Your task to perform on an android device: Search for acer predator on newegg, select the first entry, and add it to the cart. Image 0: 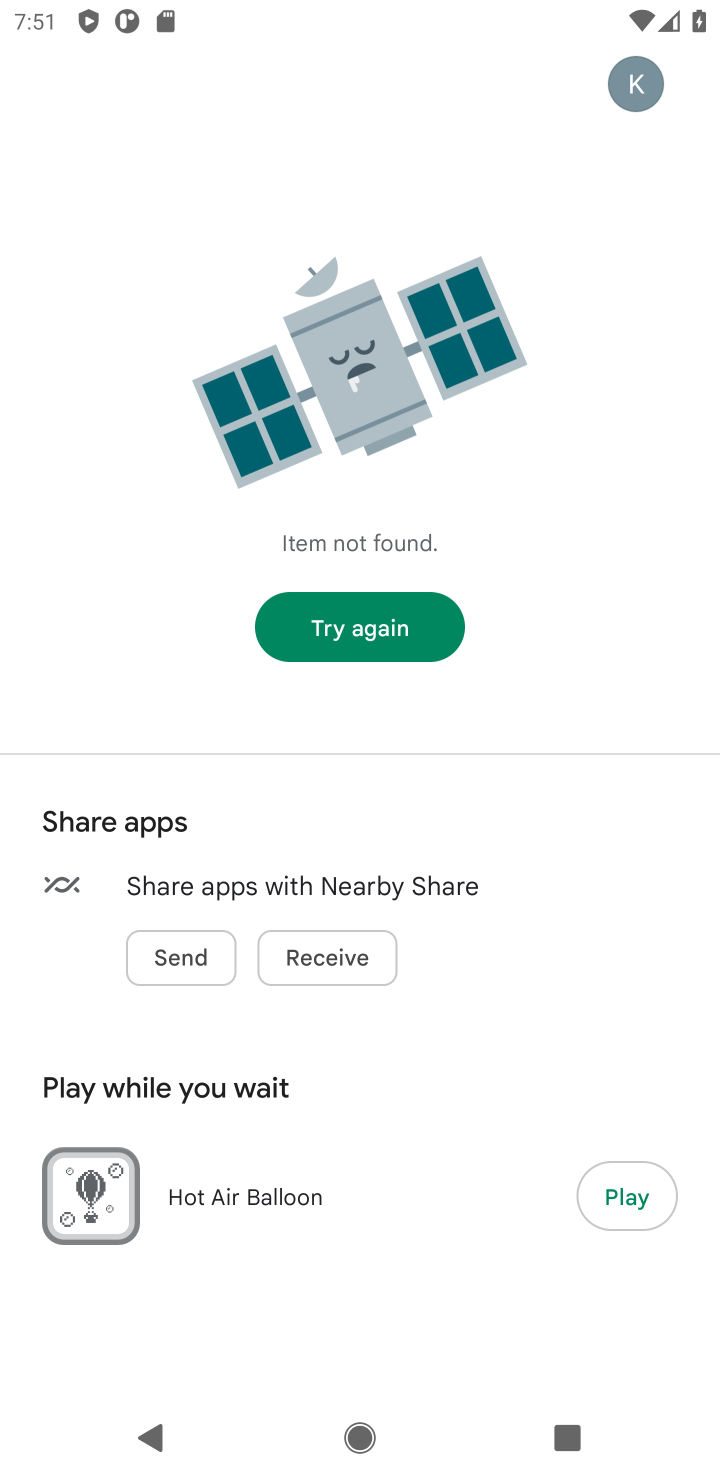
Step 0: press home button
Your task to perform on an android device: Search for acer predator on newegg, select the first entry, and add it to the cart. Image 1: 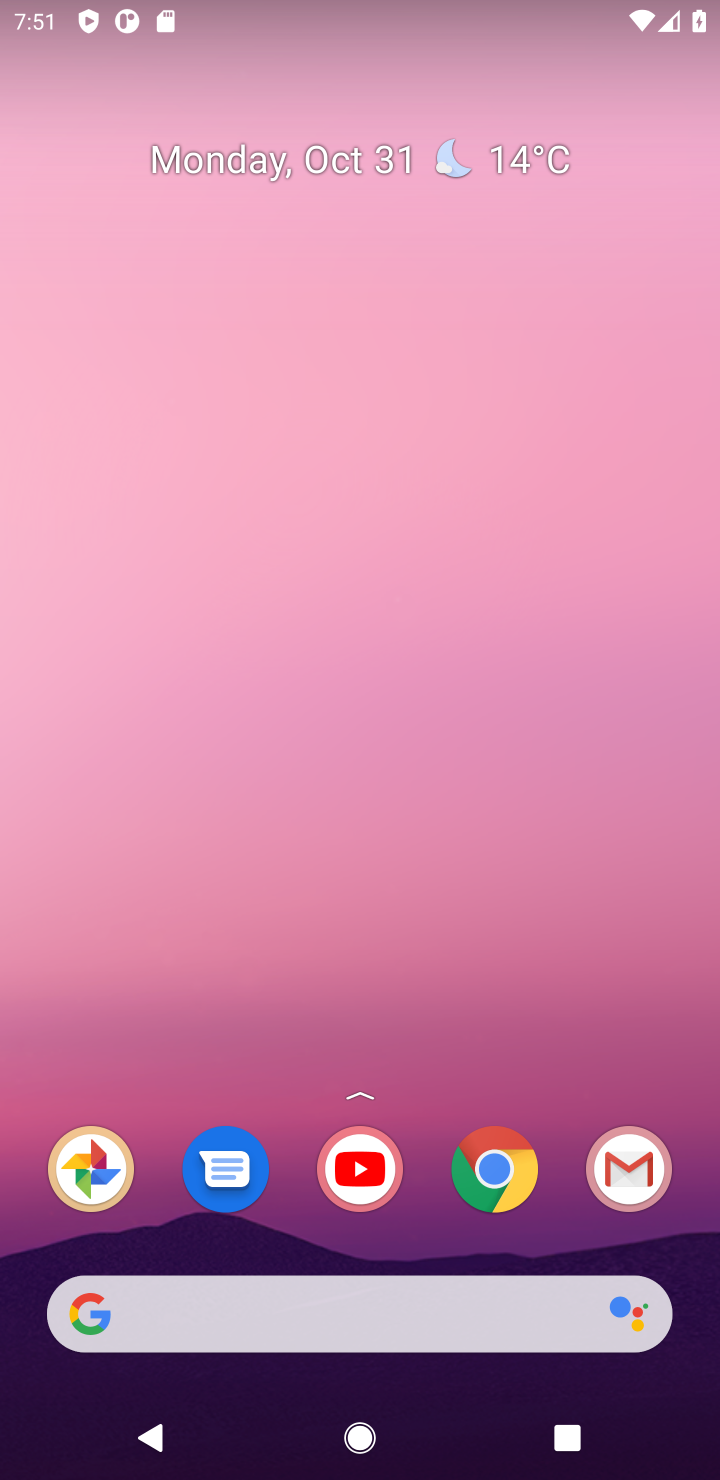
Step 1: drag from (349, 1327) to (317, 250)
Your task to perform on an android device: Search for acer predator on newegg, select the first entry, and add it to the cart. Image 2: 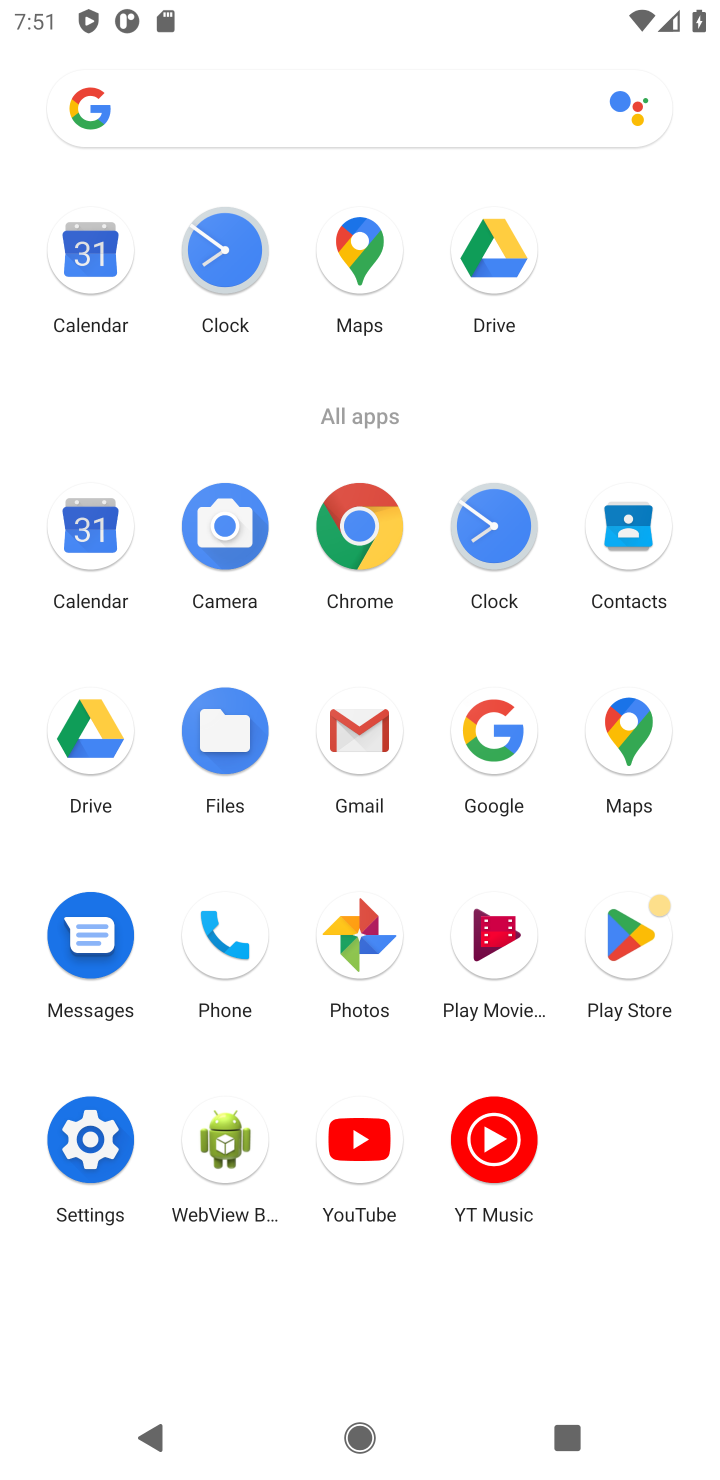
Step 2: click (504, 722)
Your task to perform on an android device: Search for acer predator on newegg, select the first entry, and add it to the cart. Image 3: 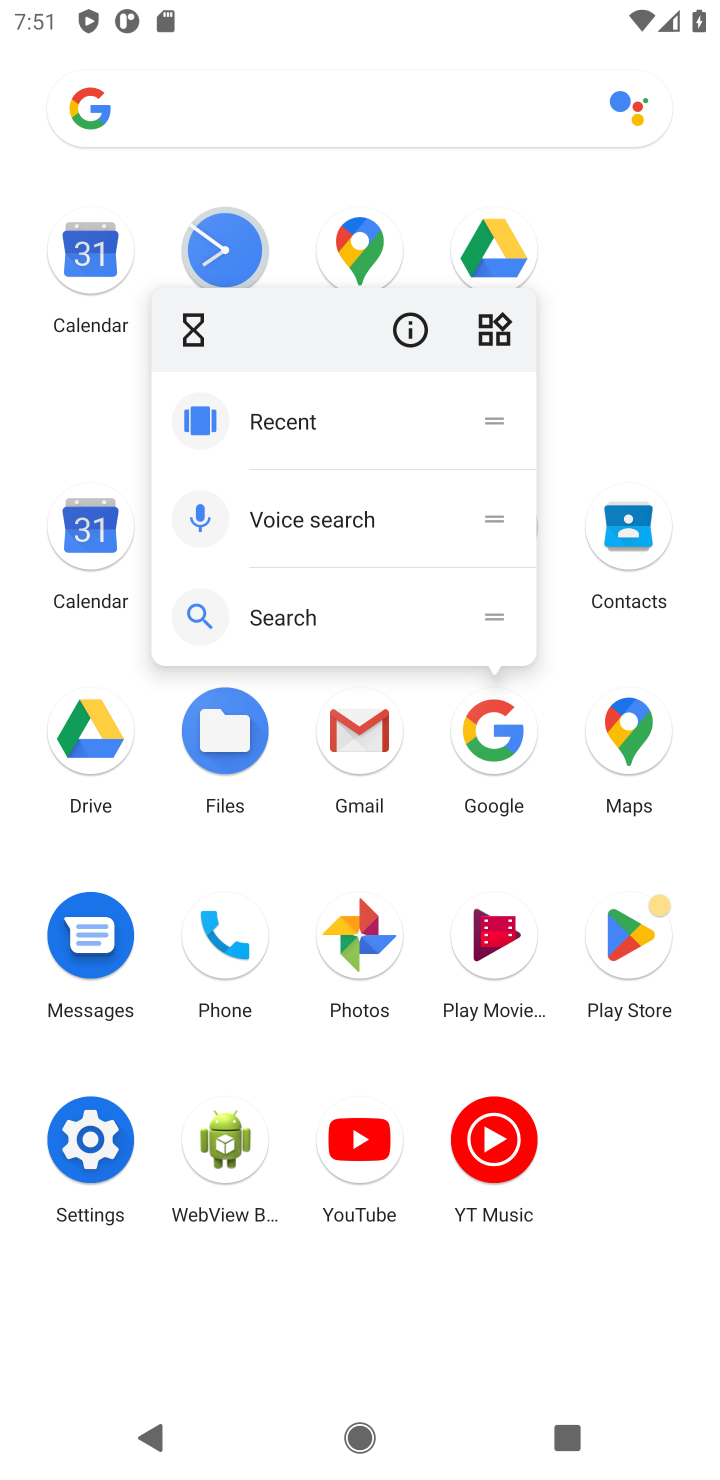
Step 3: click (493, 715)
Your task to perform on an android device: Search for acer predator on newegg, select the first entry, and add it to the cart. Image 4: 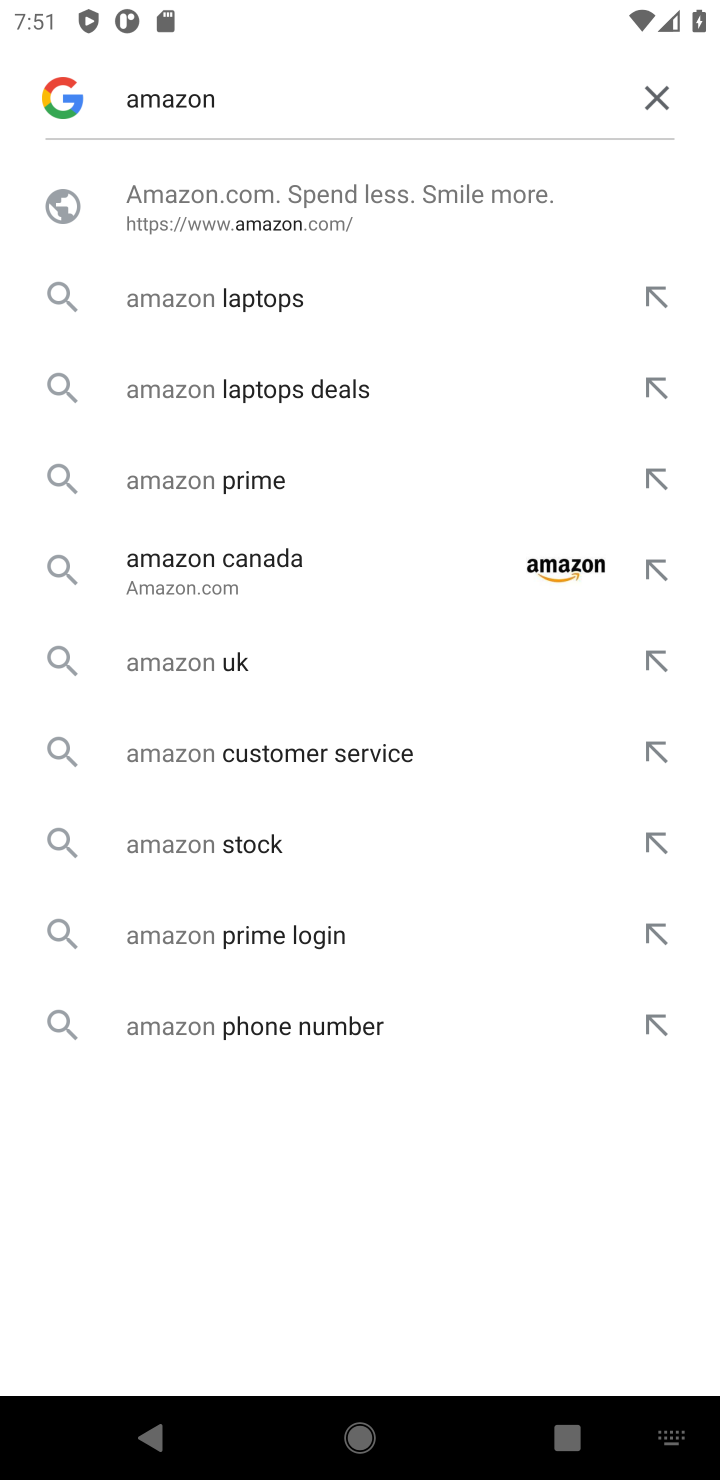
Step 4: click (671, 89)
Your task to perform on an android device: Search for acer predator on newegg, select the first entry, and add it to the cart. Image 5: 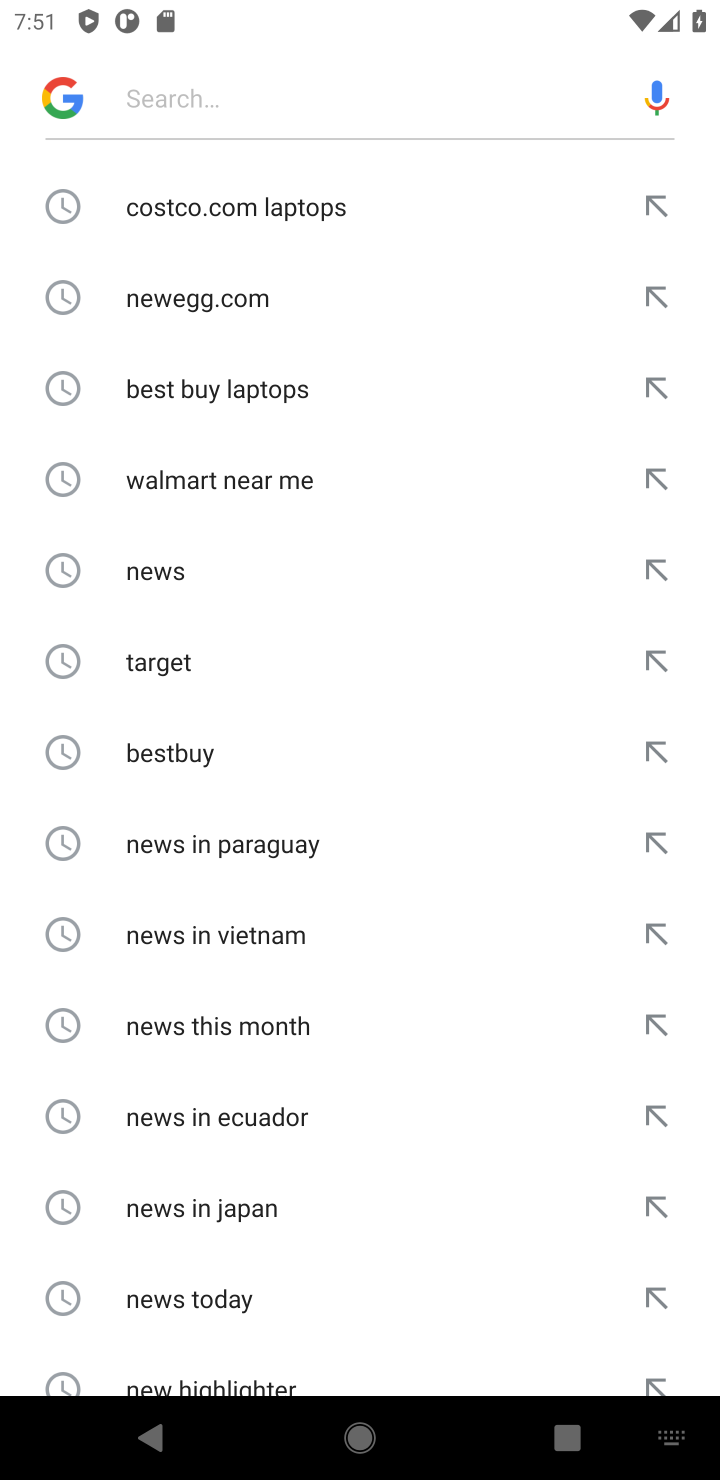
Step 5: click (254, 77)
Your task to perform on an android device: Search for acer predator on newegg, select the first entry, and add it to the cart. Image 6: 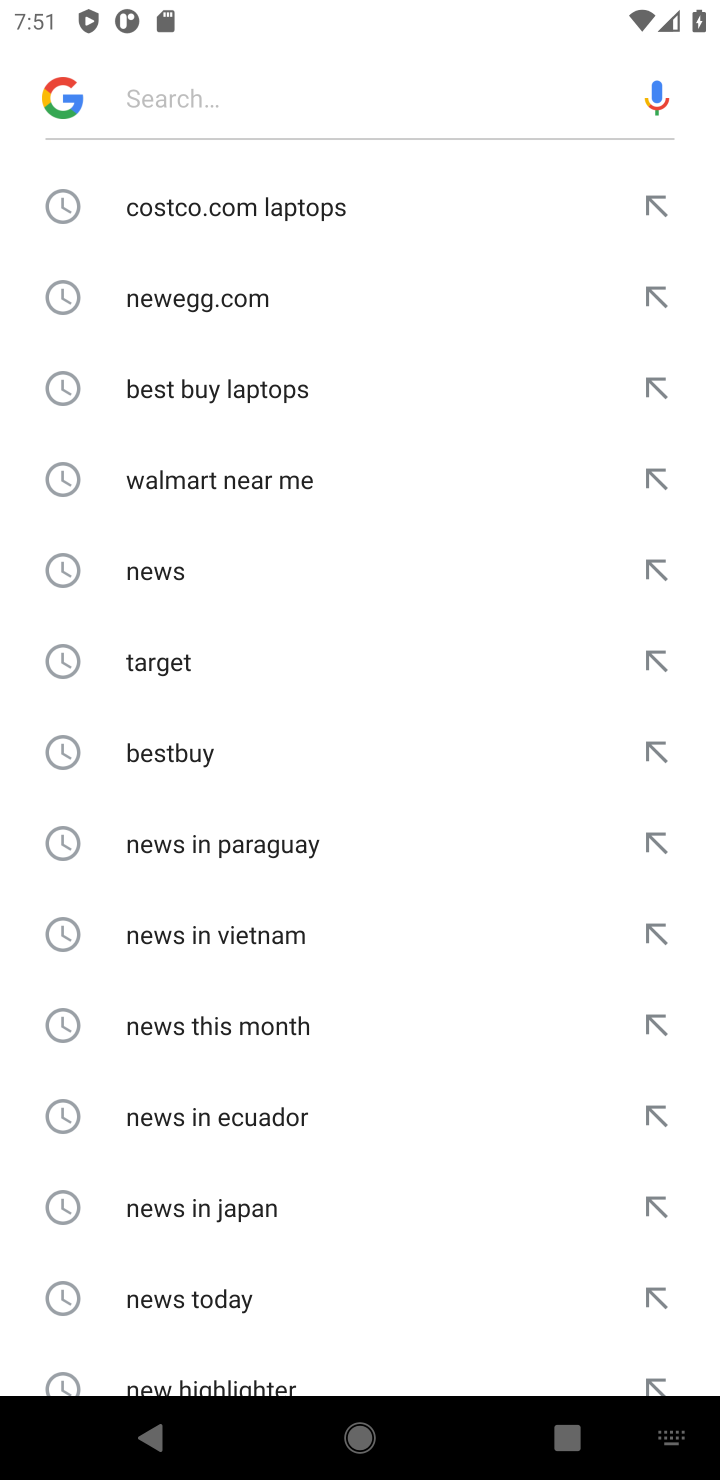
Step 6: type "newegg "
Your task to perform on an android device: Search for acer predator on newegg, select the first entry, and add it to the cart. Image 7: 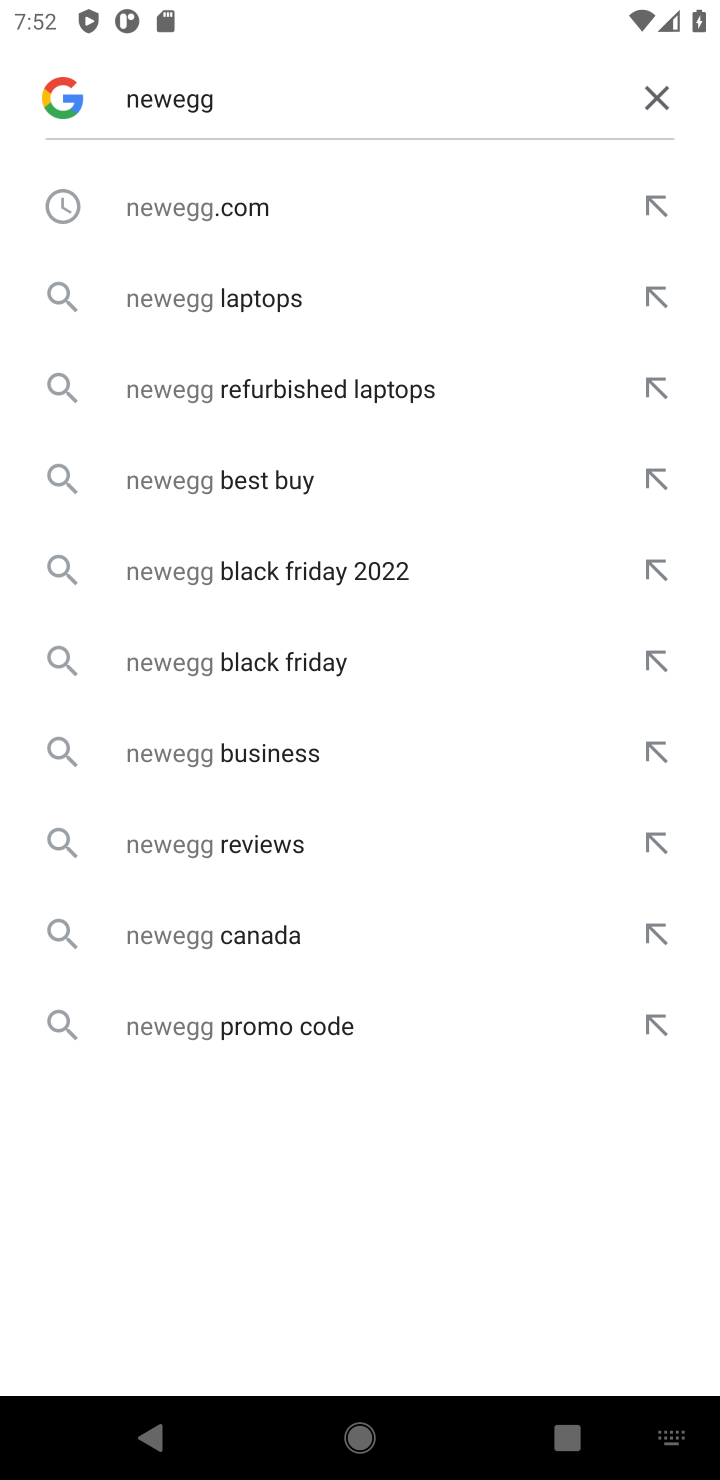
Step 7: click (209, 193)
Your task to perform on an android device: Search for acer predator on newegg, select the first entry, and add it to the cart. Image 8: 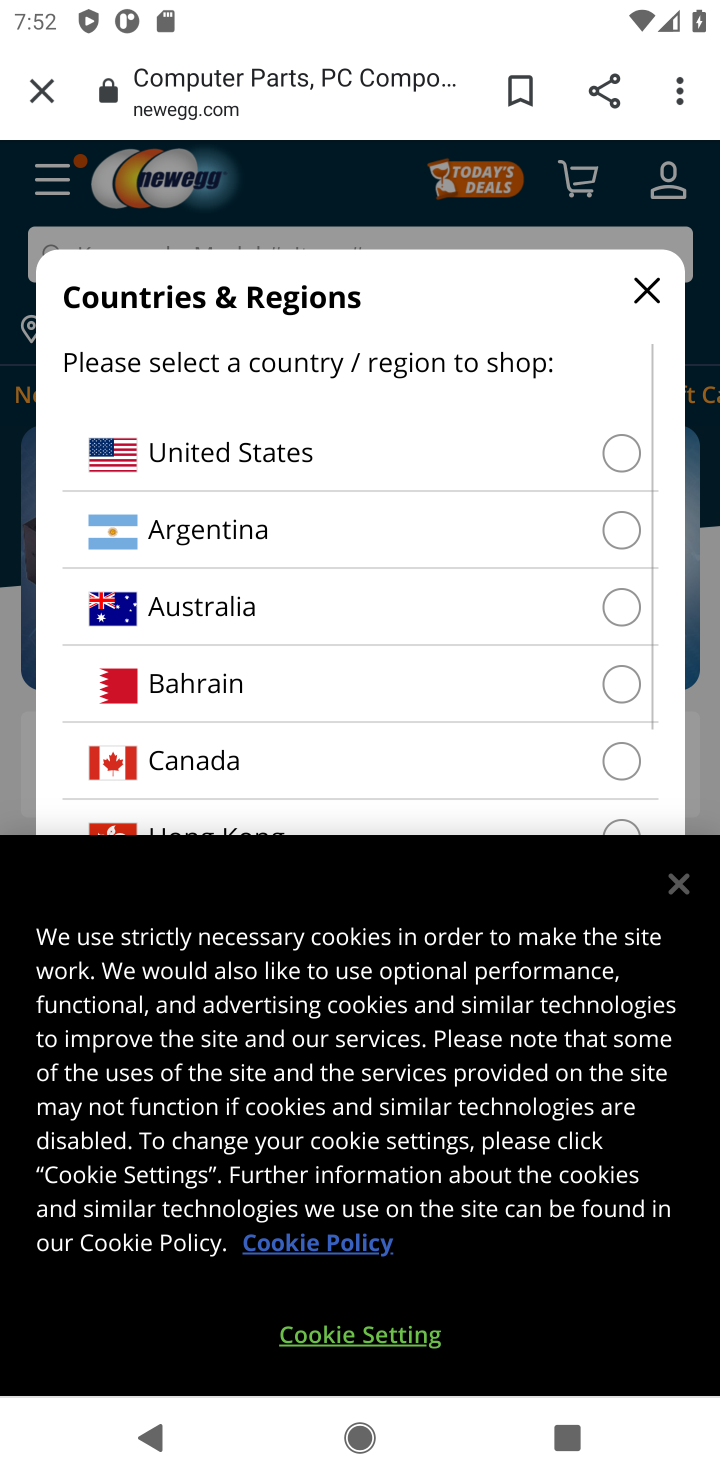
Step 8: click (676, 880)
Your task to perform on an android device: Search for acer predator on newegg, select the first entry, and add it to the cart. Image 9: 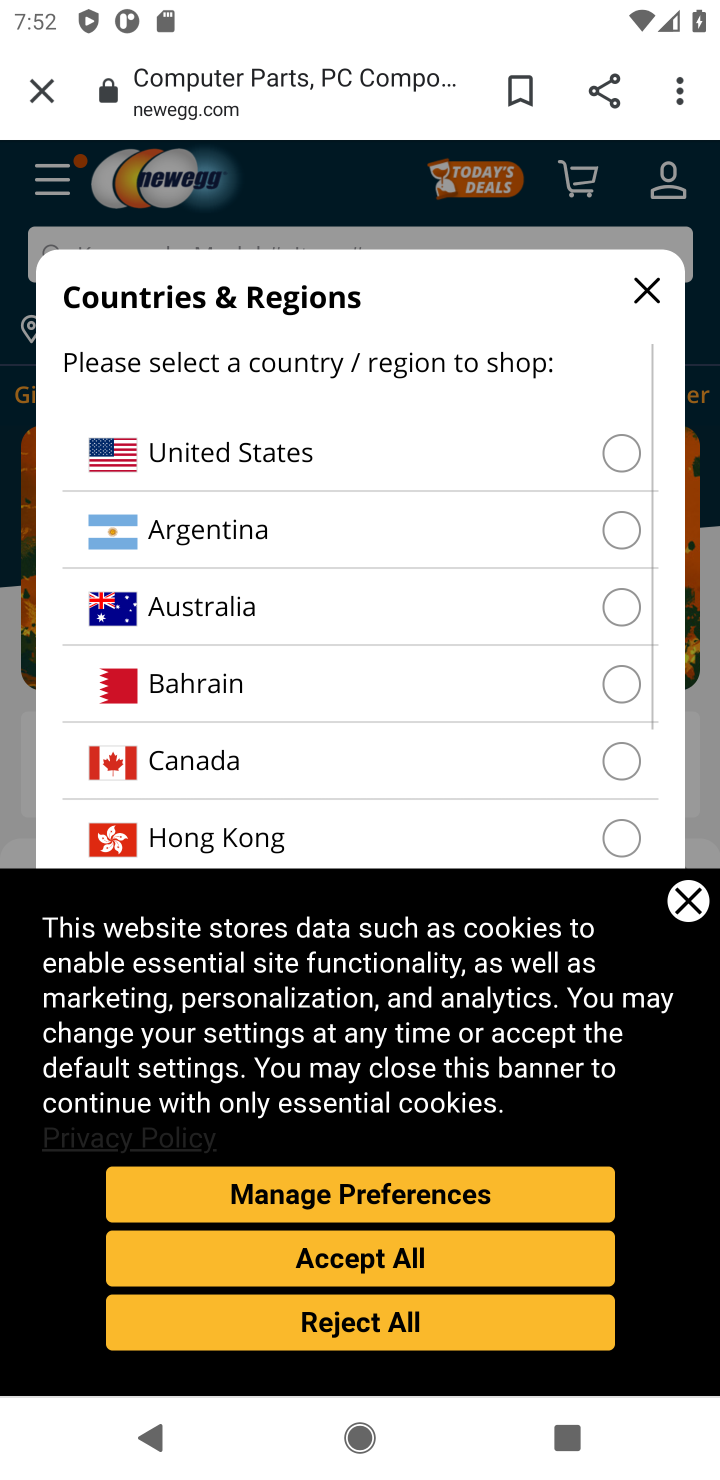
Step 9: click (674, 899)
Your task to perform on an android device: Search for acer predator on newegg, select the first entry, and add it to the cart. Image 10: 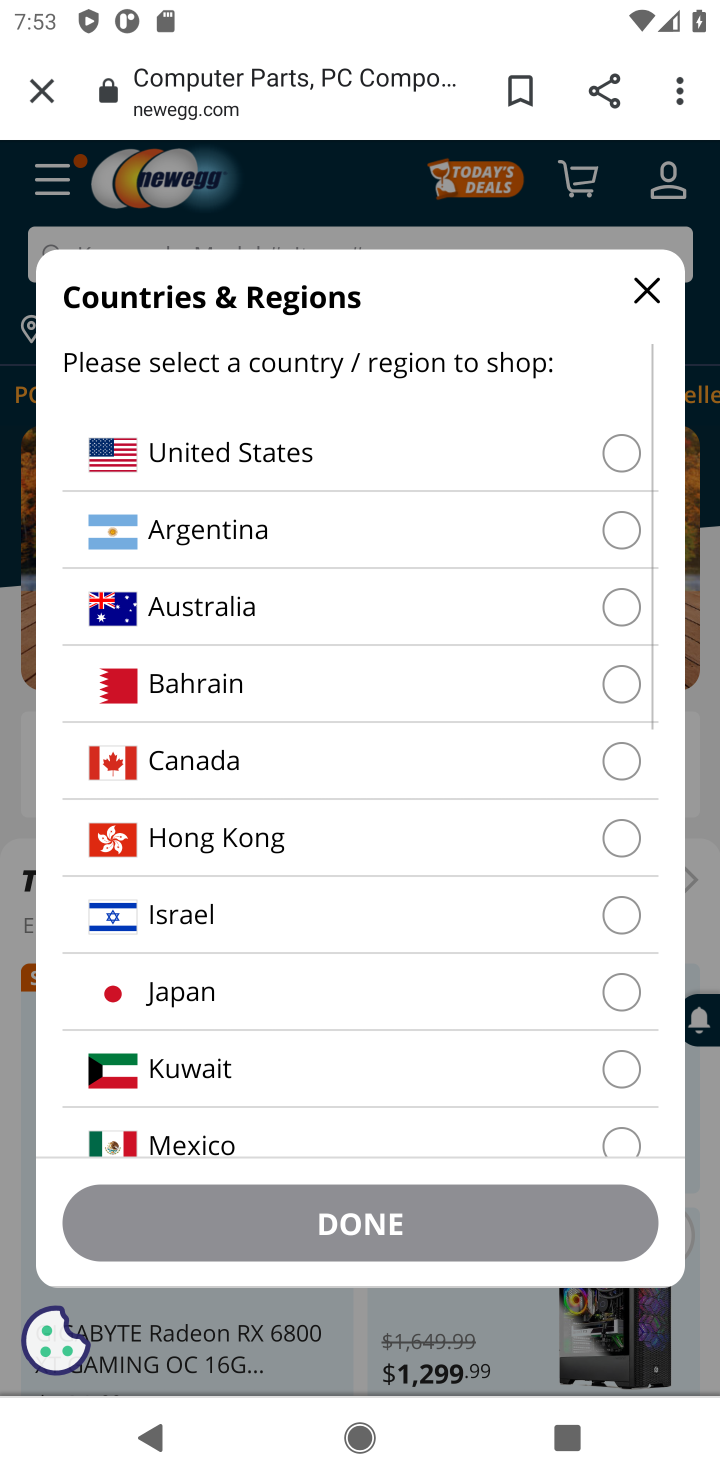
Step 10: click (612, 437)
Your task to perform on an android device: Search for acer predator on newegg, select the first entry, and add it to the cart. Image 11: 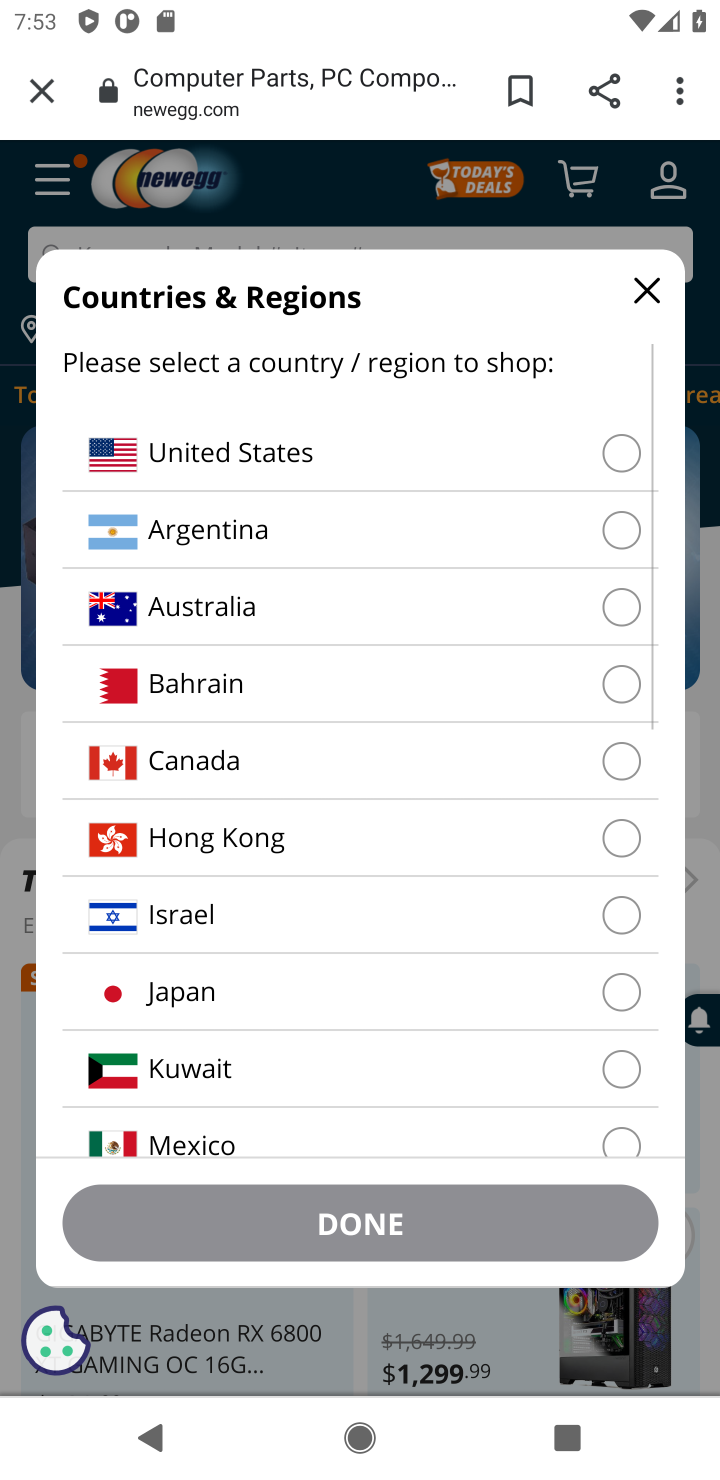
Step 11: click (606, 443)
Your task to perform on an android device: Search for acer predator on newegg, select the first entry, and add it to the cart. Image 12: 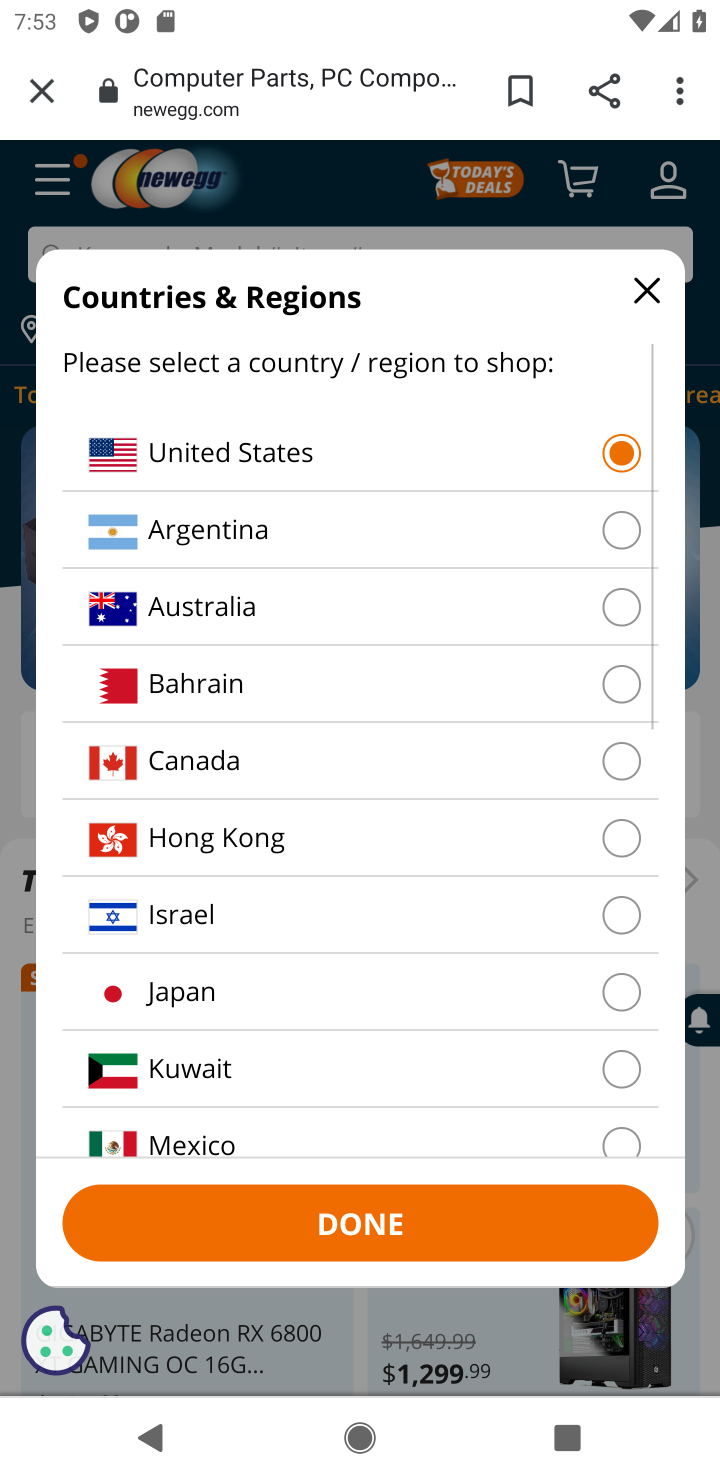
Step 12: click (629, 455)
Your task to perform on an android device: Search for acer predator on newegg, select the first entry, and add it to the cart. Image 13: 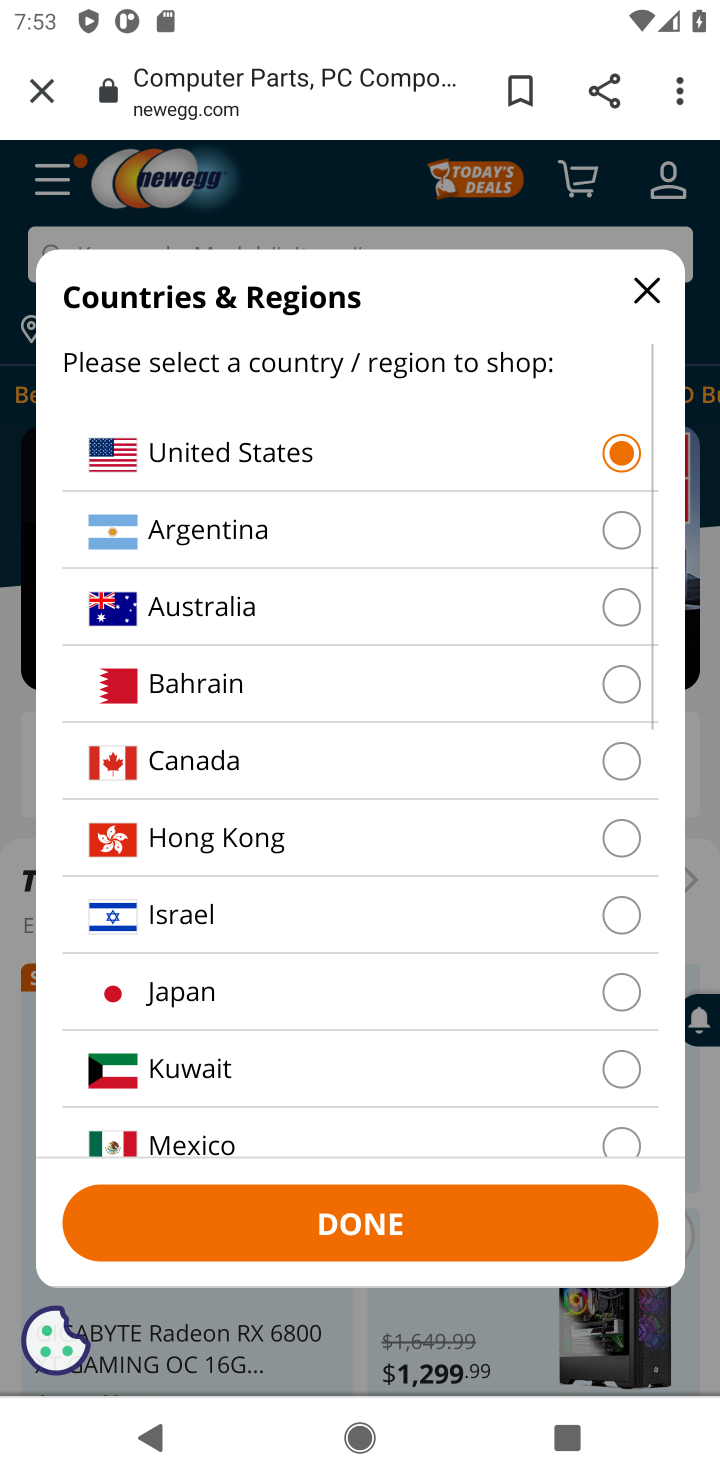
Step 13: click (442, 1230)
Your task to perform on an android device: Search for acer predator on newegg, select the first entry, and add it to the cart. Image 14: 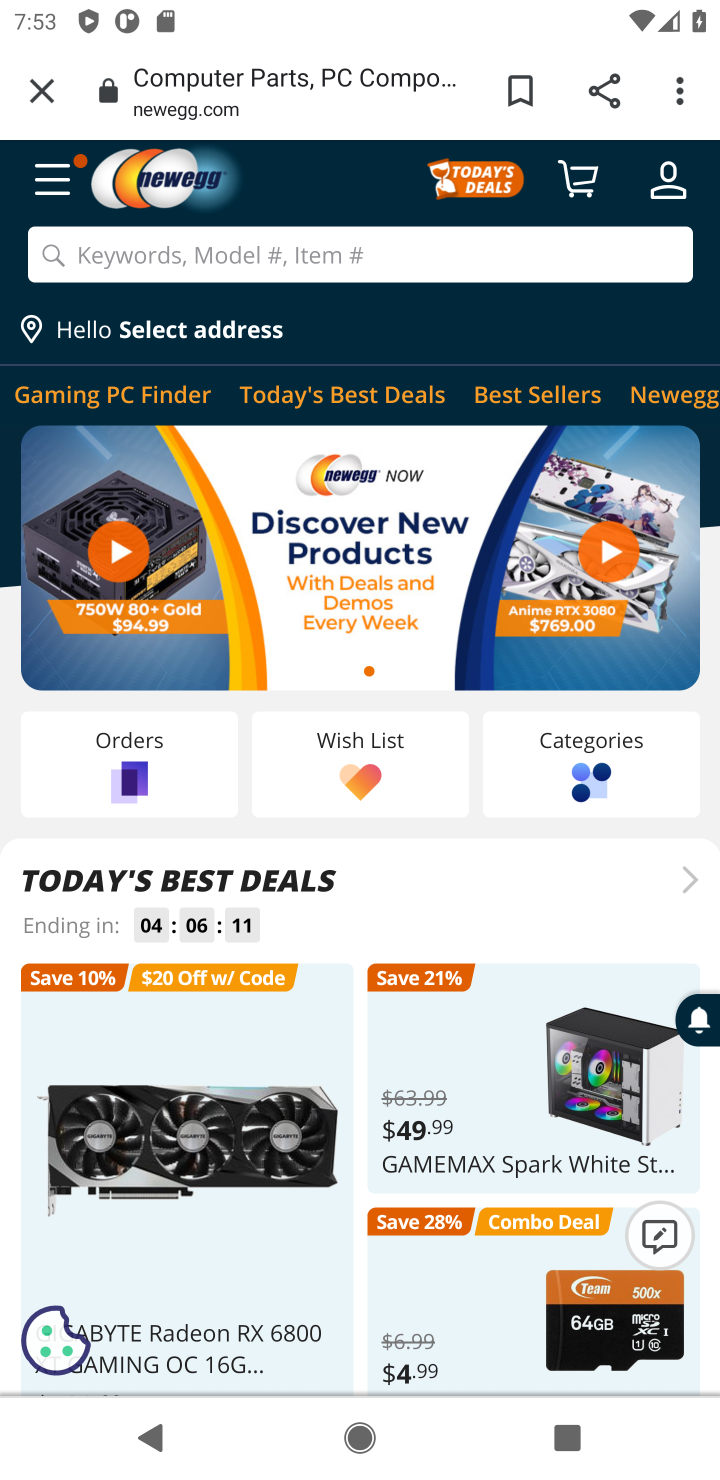
Step 14: click (170, 251)
Your task to perform on an android device: Search for acer predator on newegg, select the first entry, and add it to the cart. Image 15: 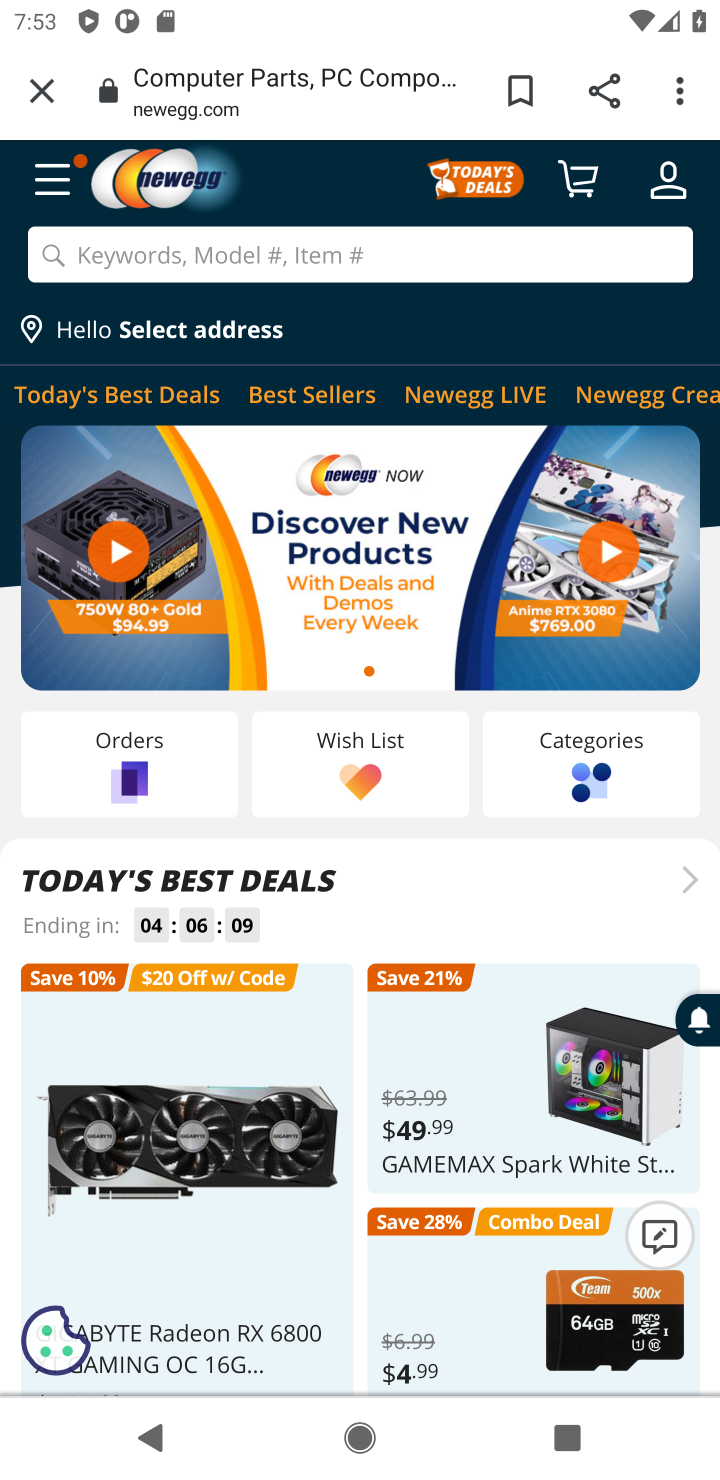
Step 15: click (199, 243)
Your task to perform on an android device: Search for acer predator on newegg, select the first entry, and add it to the cart. Image 16: 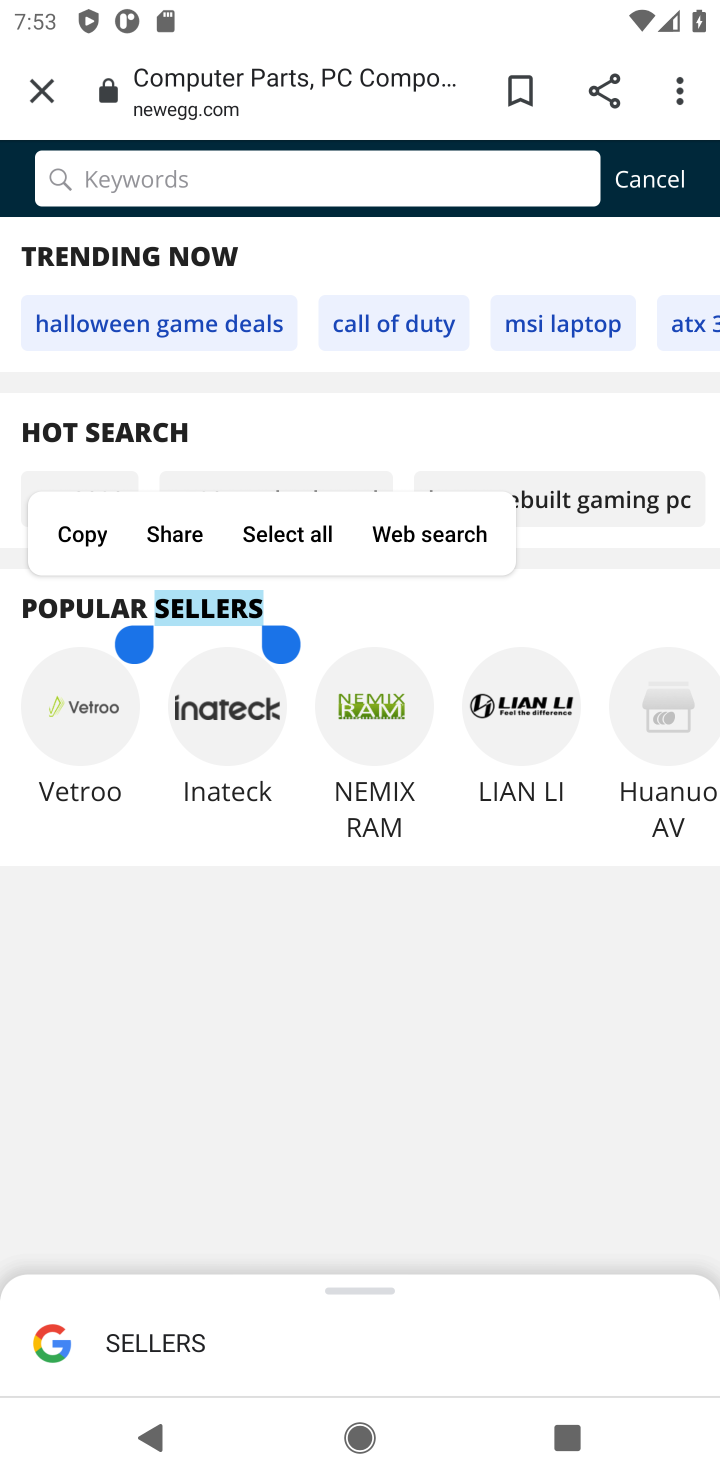
Step 16: type "acer predator "
Your task to perform on an android device: Search for acer predator on newegg, select the first entry, and add it to the cart. Image 17: 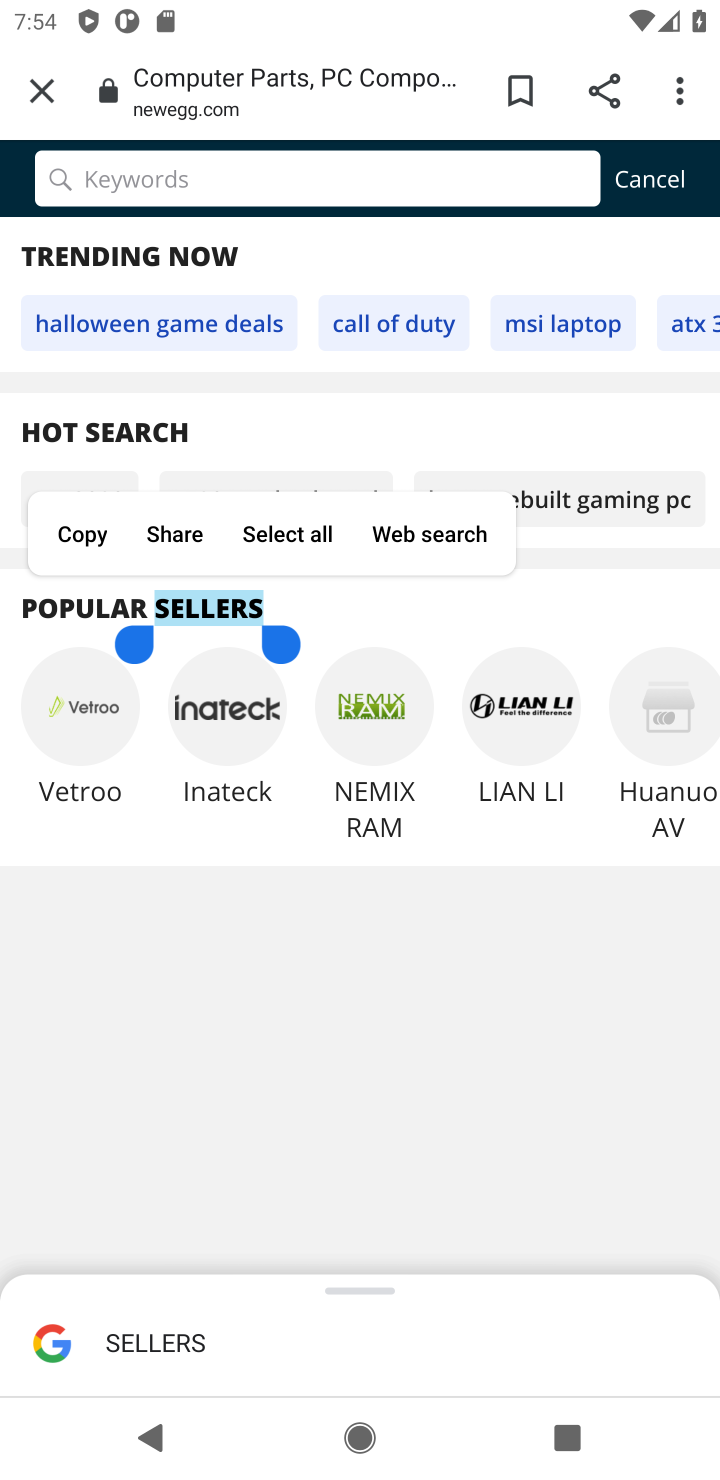
Step 17: click (183, 156)
Your task to perform on an android device: Search for acer predator on newegg, select the first entry, and add it to the cart. Image 18: 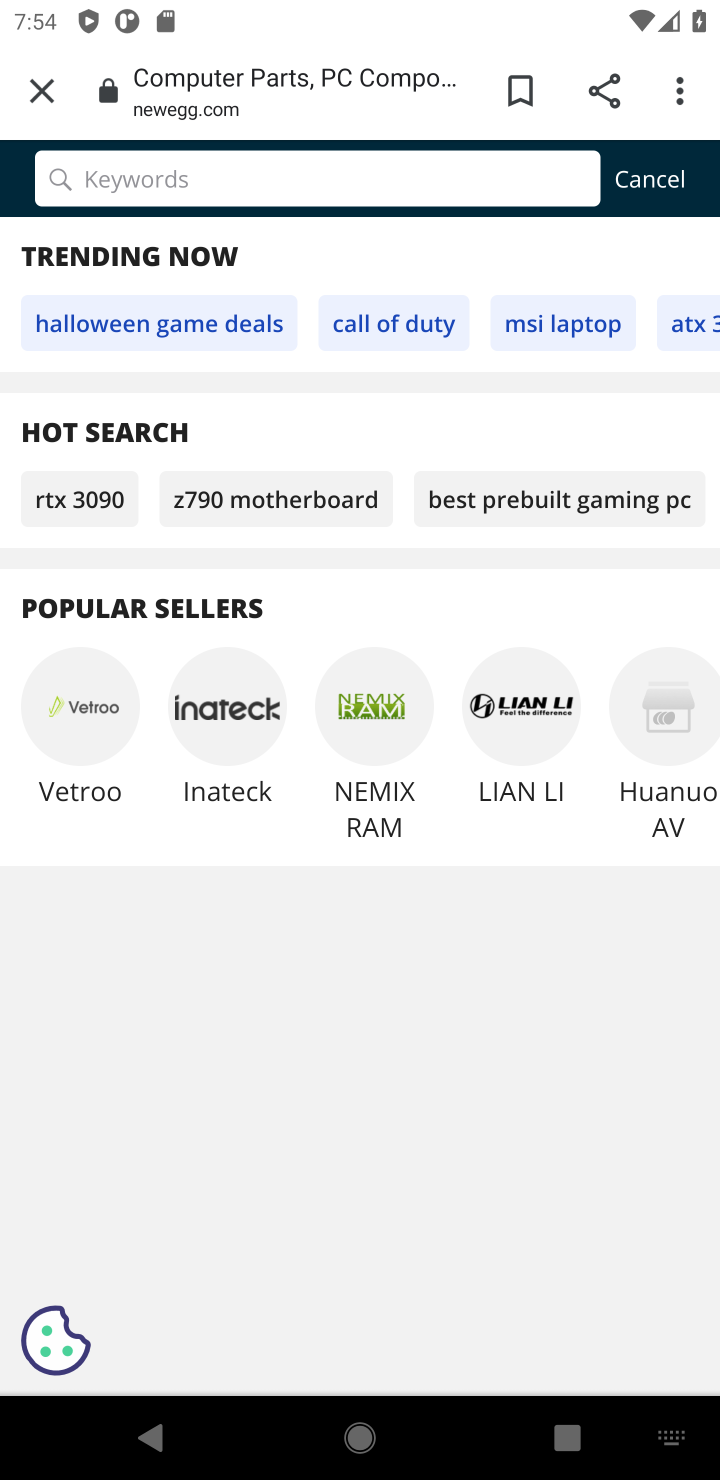
Step 18: type "predator"
Your task to perform on an android device: Search for acer predator on newegg, select the first entry, and add it to the cart. Image 19: 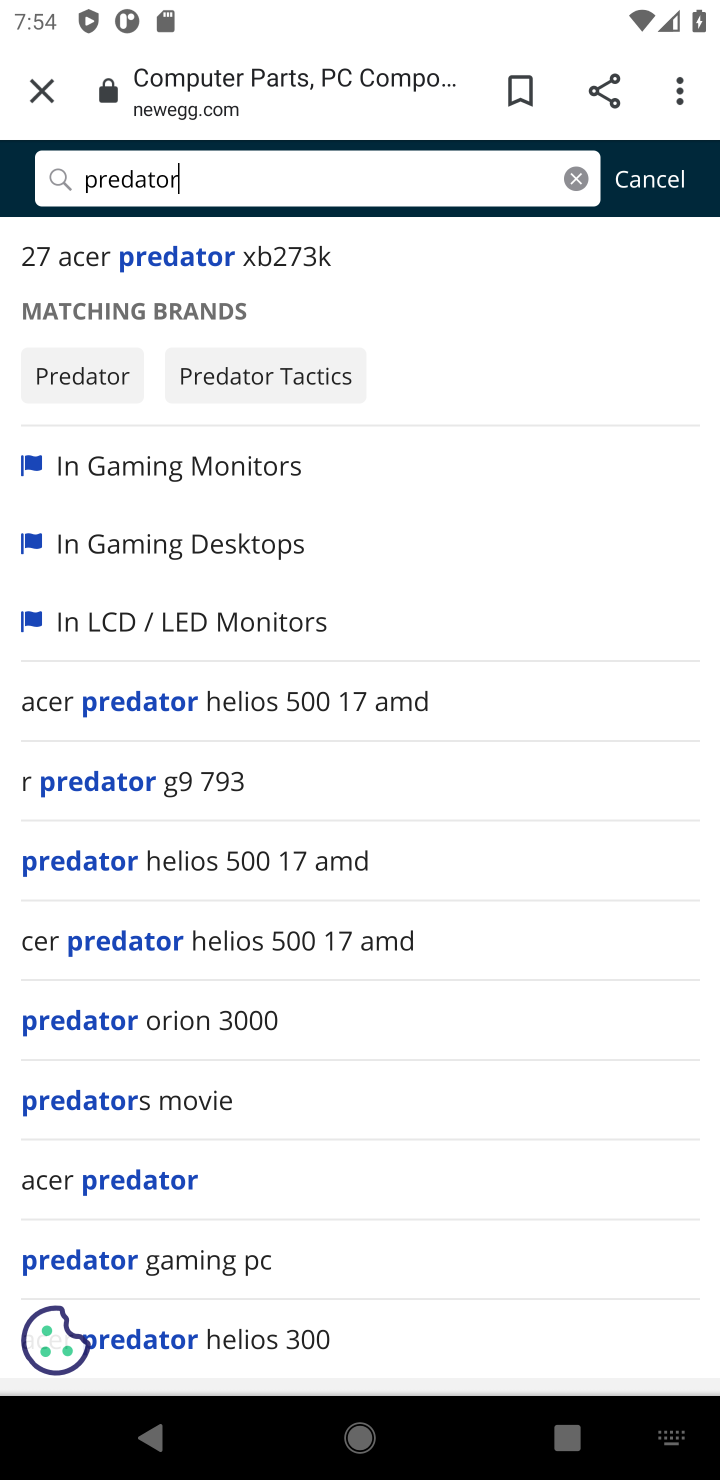
Step 19: click (127, 250)
Your task to perform on an android device: Search for acer predator on newegg, select the first entry, and add it to the cart. Image 20: 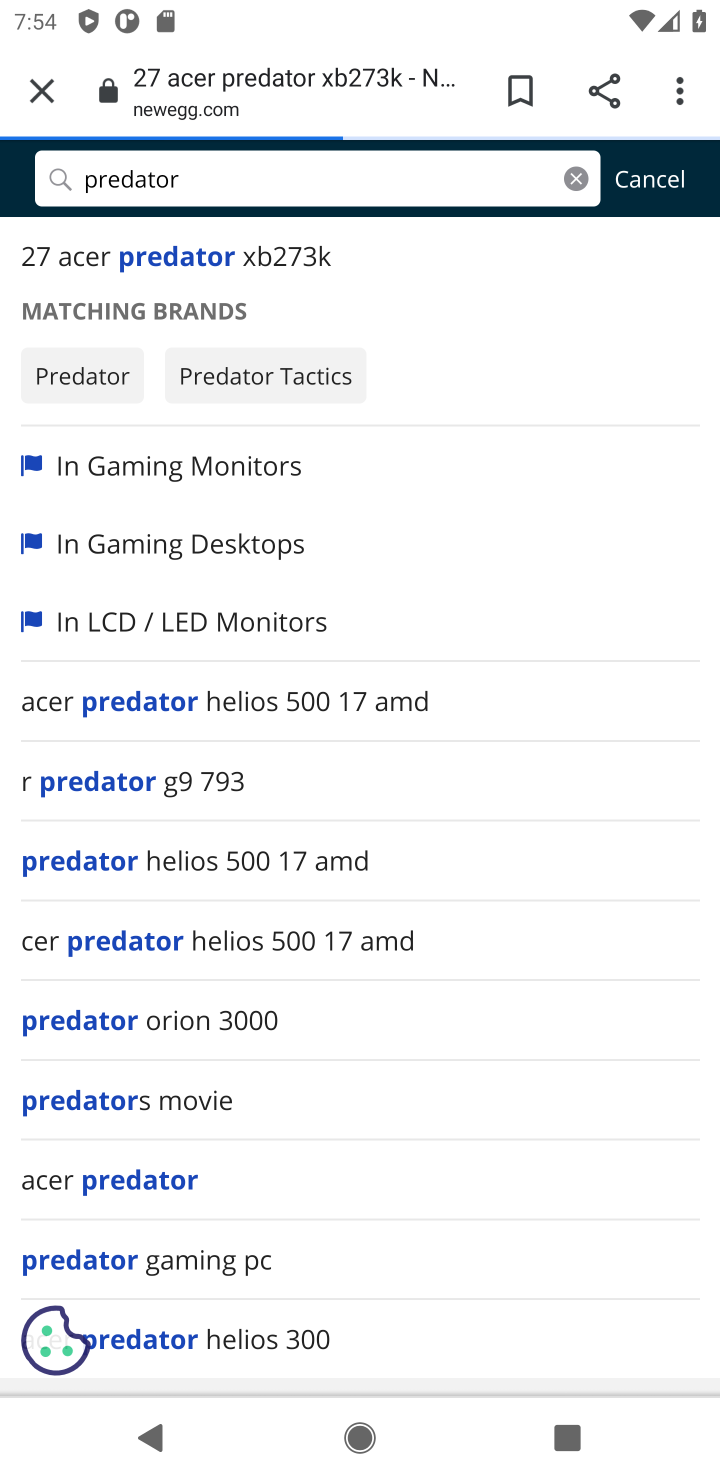
Step 20: click (70, 253)
Your task to perform on an android device: Search for acer predator on newegg, select the first entry, and add it to the cart. Image 21: 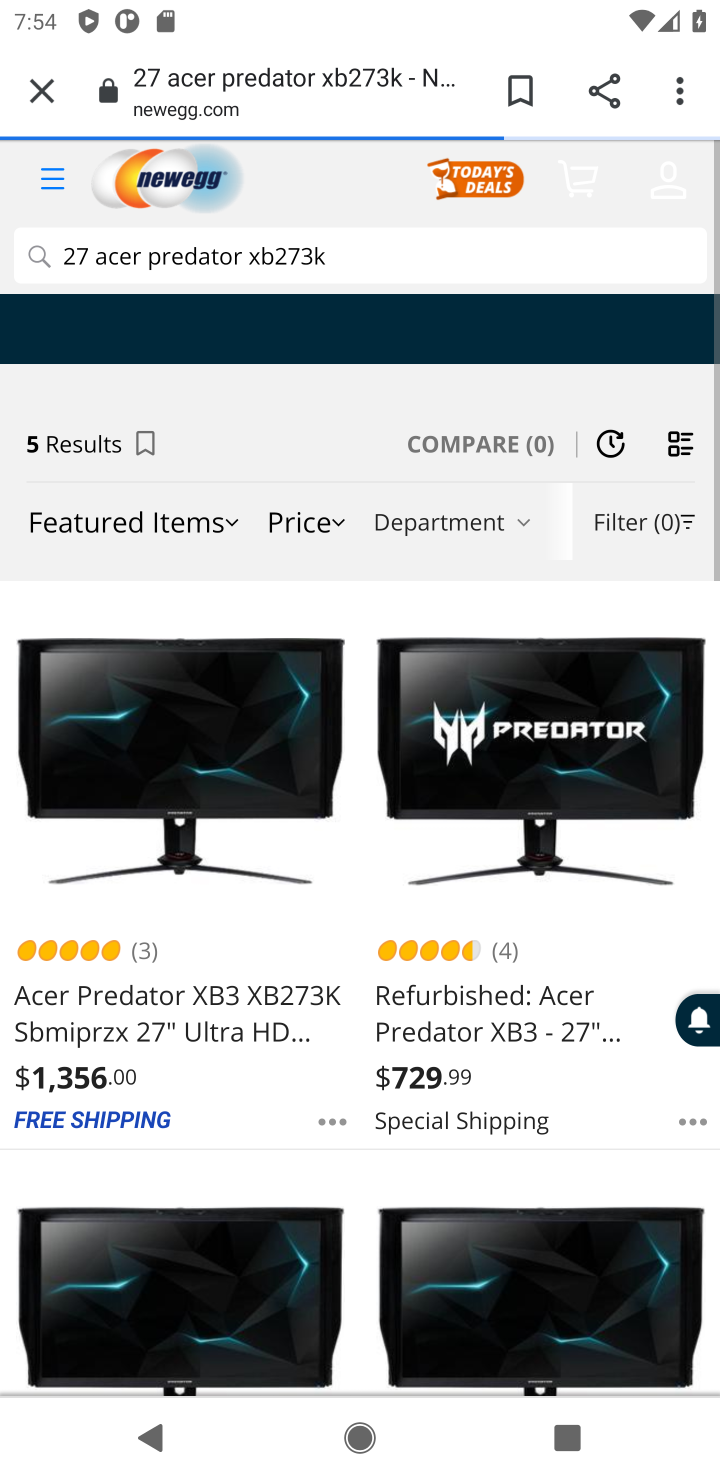
Step 21: click (70, 253)
Your task to perform on an android device: Search for acer predator on newegg, select the first entry, and add it to the cart. Image 22: 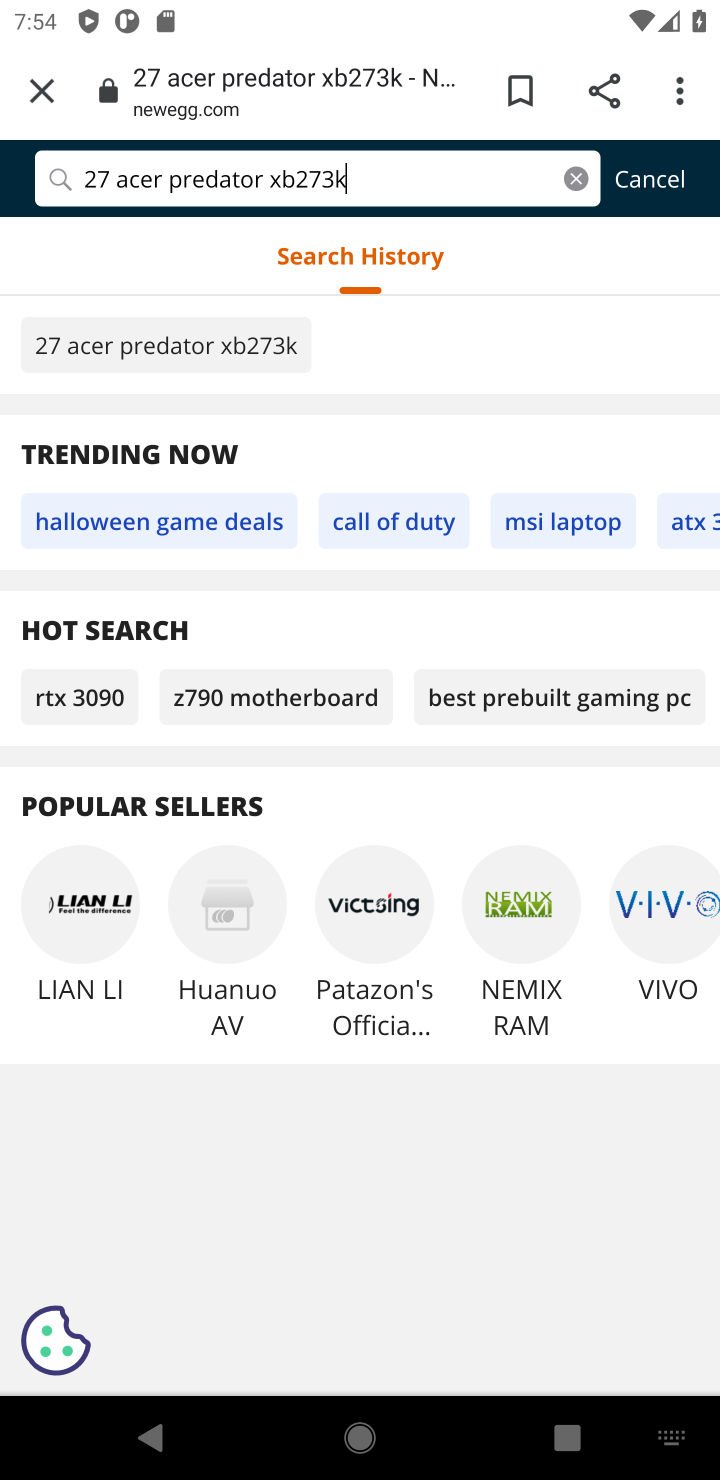
Step 22: click (128, 337)
Your task to perform on an android device: Search for acer predator on newegg, select the first entry, and add it to the cart. Image 23: 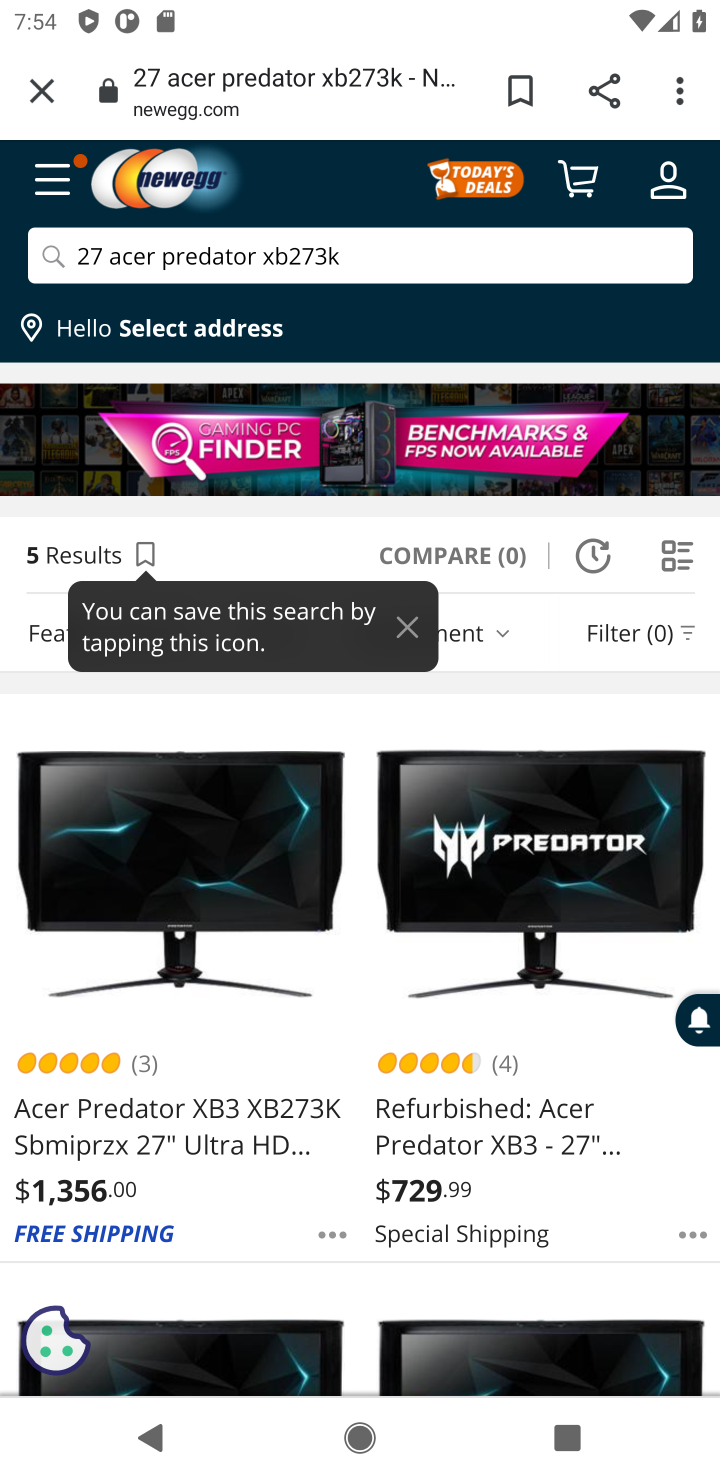
Step 23: click (206, 1082)
Your task to perform on an android device: Search for acer predator on newegg, select the first entry, and add it to the cart. Image 24: 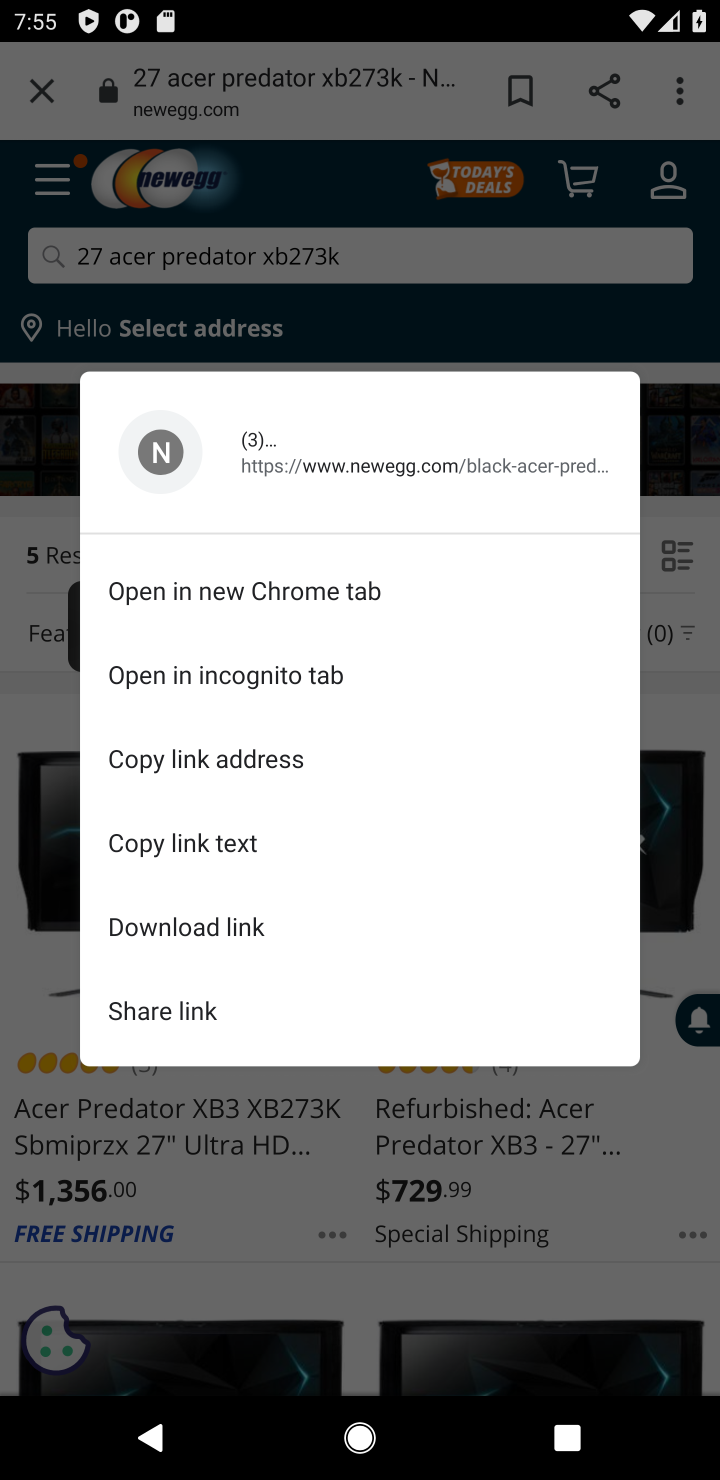
Step 24: click (190, 1128)
Your task to perform on an android device: Search for acer predator on newegg, select the first entry, and add it to the cart. Image 25: 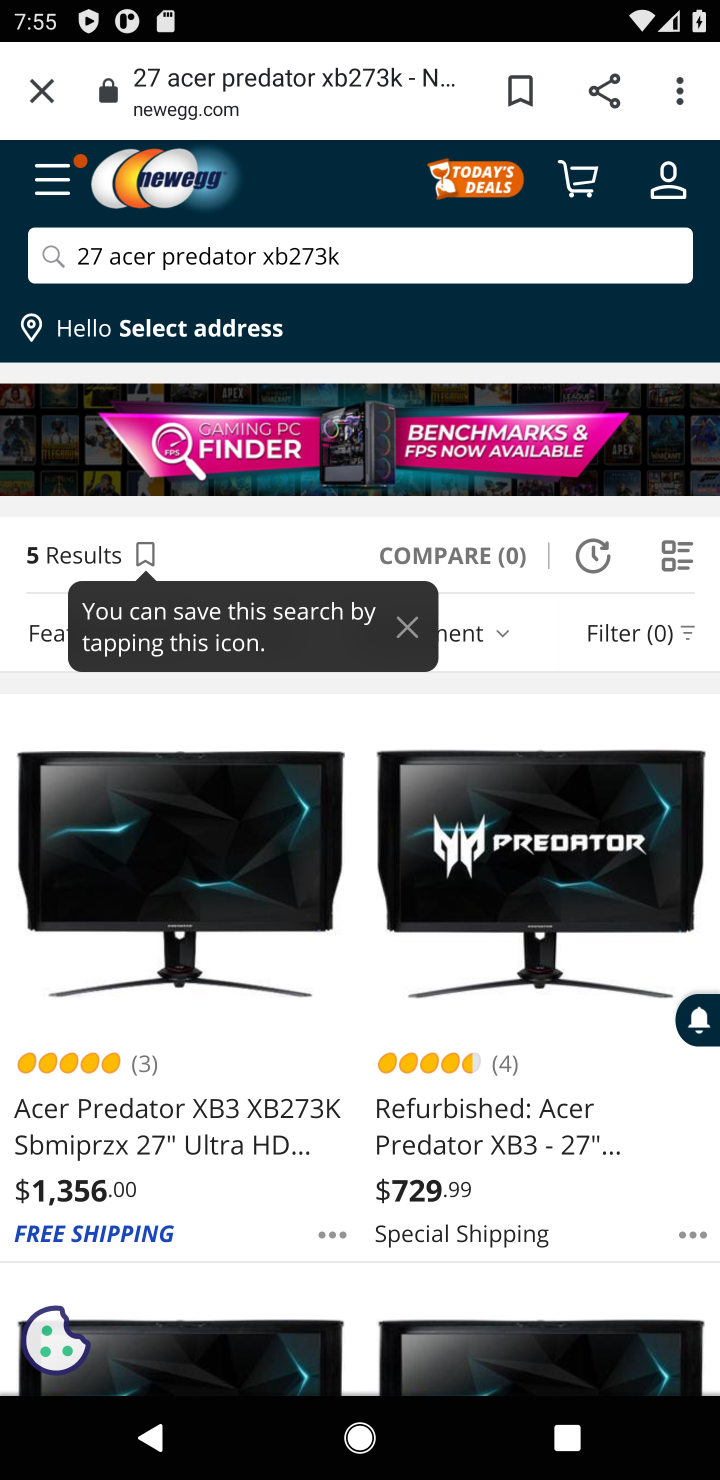
Step 25: click (44, 794)
Your task to perform on an android device: Search for acer predator on newegg, select the first entry, and add it to the cart. Image 26: 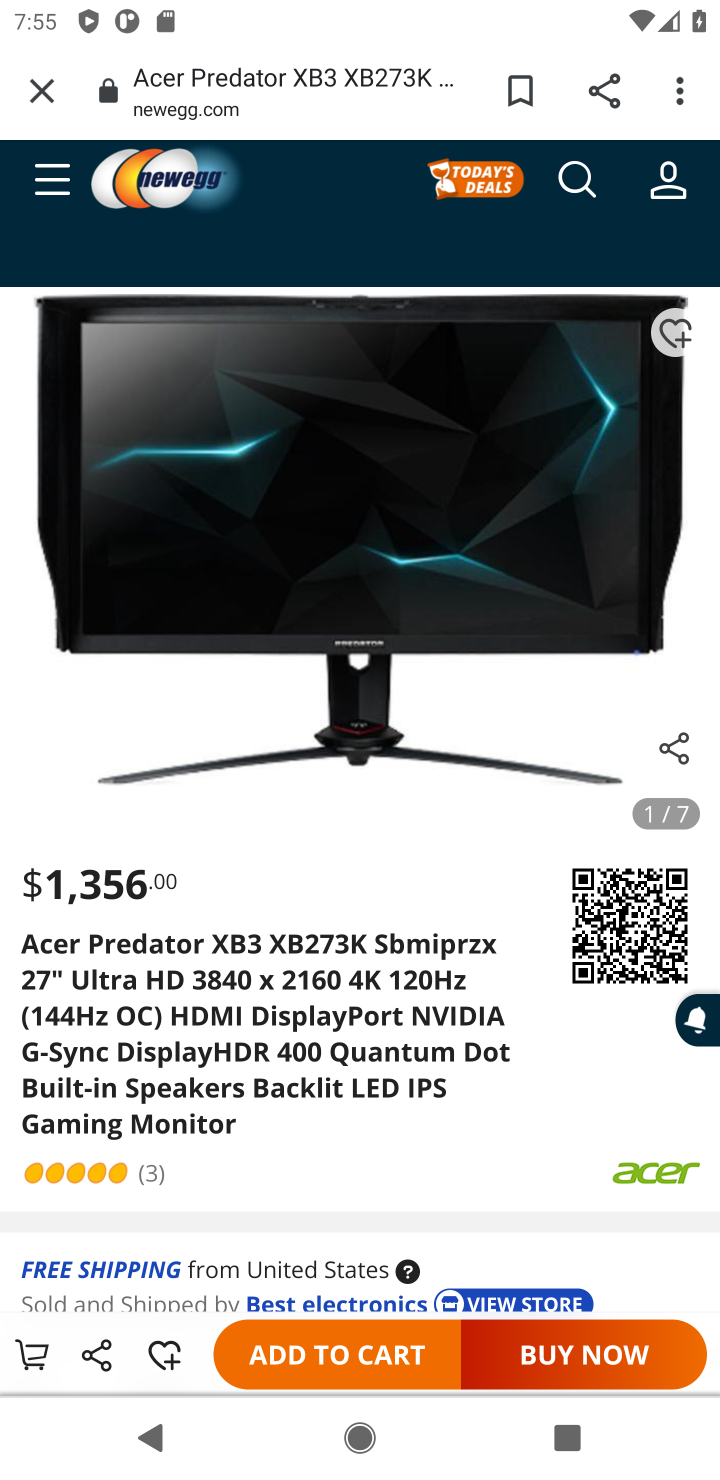
Step 26: click (375, 1362)
Your task to perform on an android device: Search for acer predator on newegg, select the first entry, and add it to the cart. Image 27: 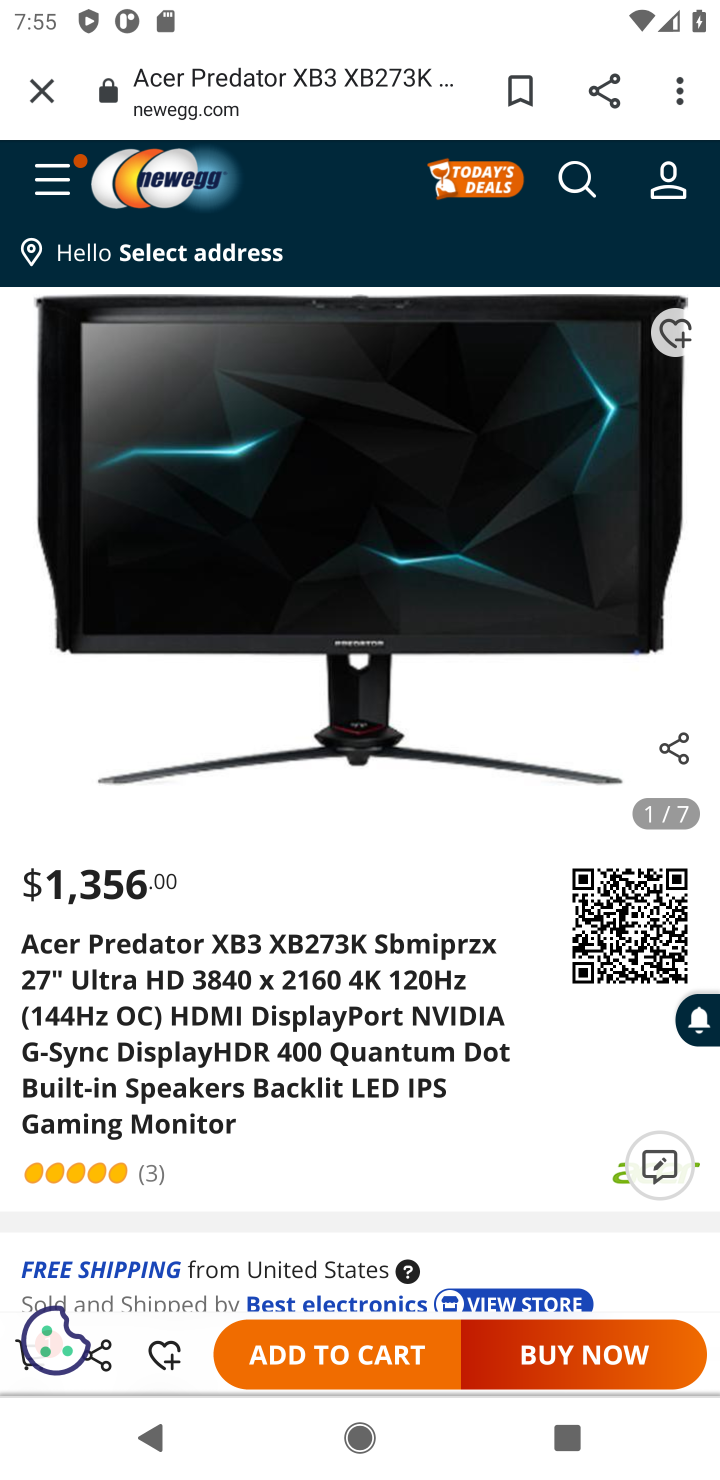
Step 27: click (346, 1358)
Your task to perform on an android device: Search for acer predator on newegg, select the first entry, and add it to the cart. Image 28: 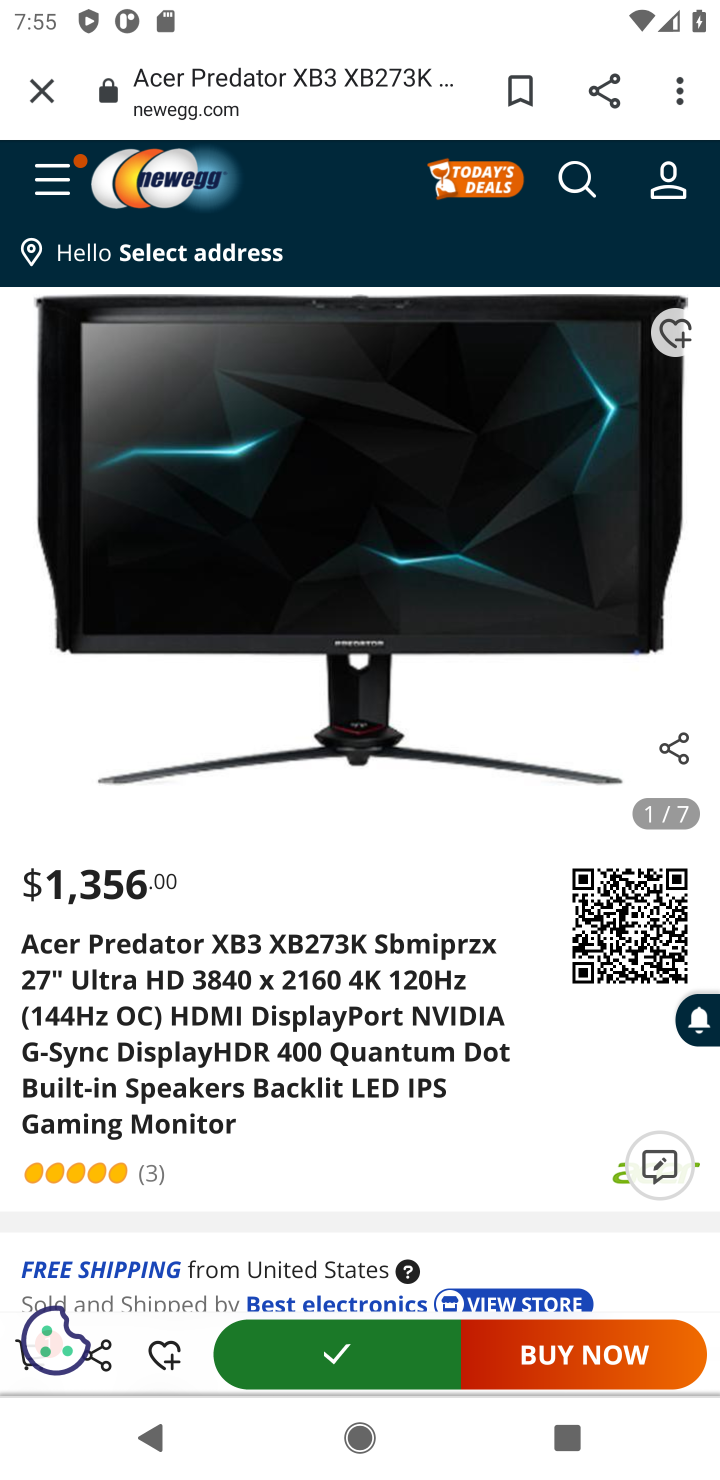
Step 28: task complete